Your task to perform on an android device: change the clock display to digital Image 0: 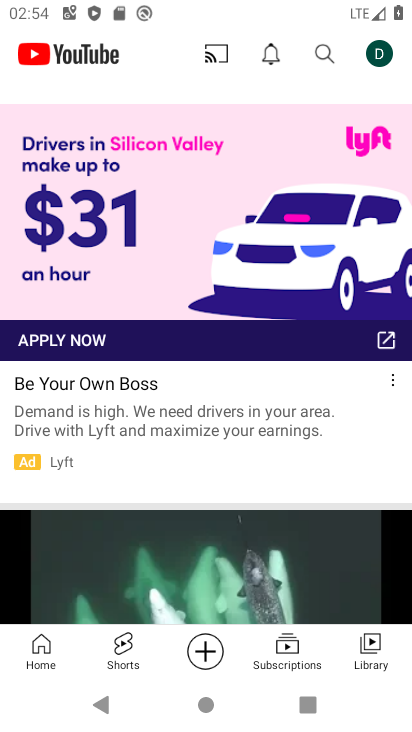
Step 0: press home button
Your task to perform on an android device: change the clock display to digital Image 1: 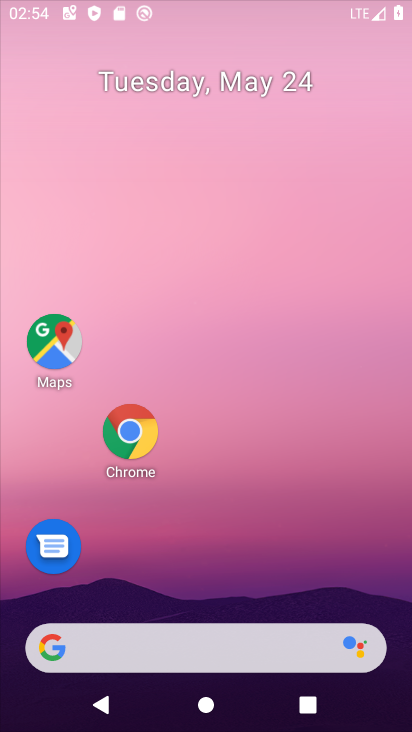
Step 1: drag from (168, 571) to (227, 171)
Your task to perform on an android device: change the clock display to digital Image 2: 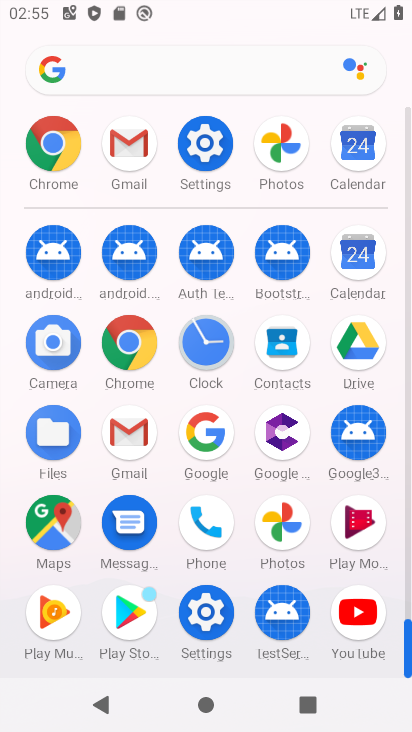
Step 2: click (199, 333)
Your task to perform on an android device: change the clock display to digital Image 3: 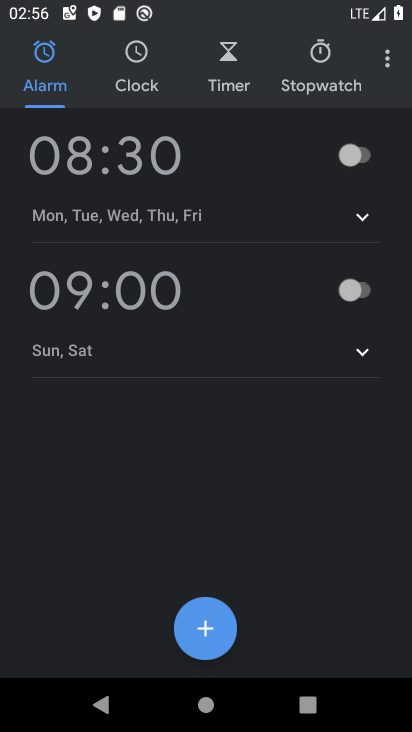
Step 3: click (134, 56)
Your task to perform on an android device: change the clock display to digital Image 4: 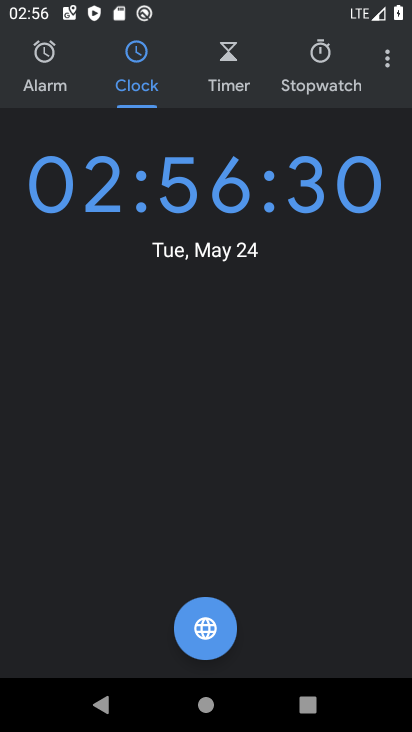
Step 4: click (382, 42)
Your task to perform on an android device: change the clock display to digital Image 5: 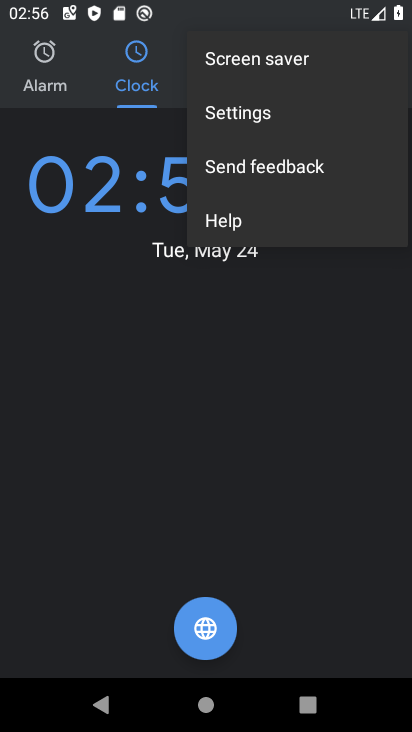
Step 5: click (229, 110)
Your task to perform on an android device: change the clock display to digital Image 6: 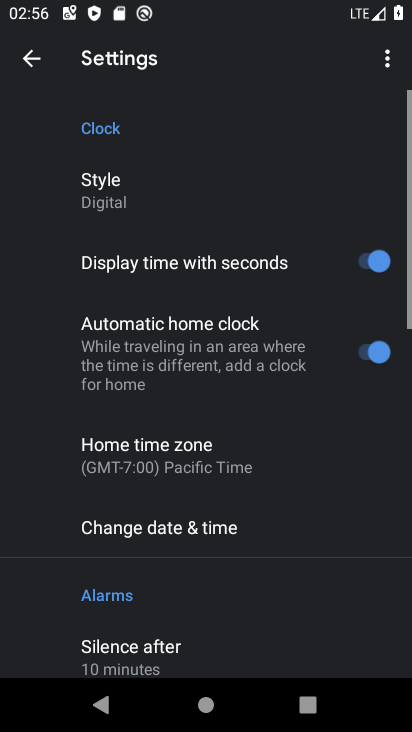
Step 6: click (127, 182)
Your task to perform on an android device: change the clock display to digital Image 7: 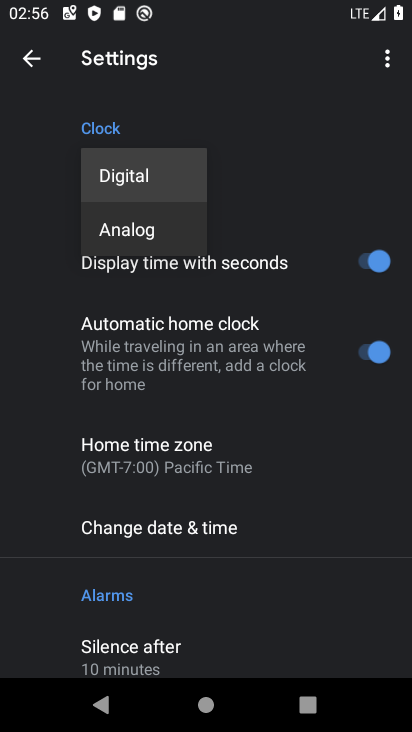
Step 7: click (154, 250)
Your task to perform on an android device: change the clock display to digital Image 8: 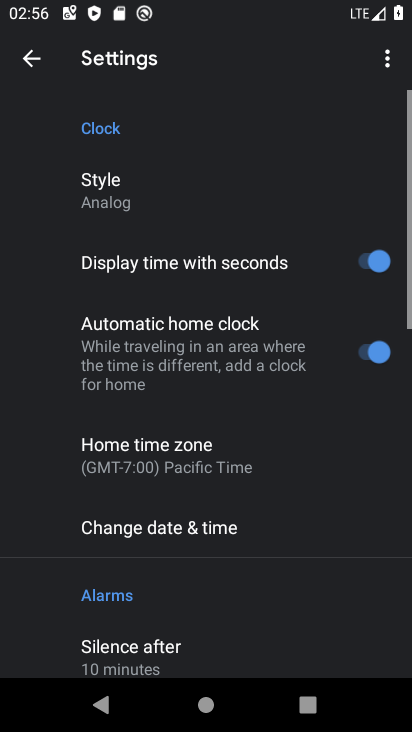
Step 8: click (136, 207)
Your task to perform on an android device: change the clock display to digital Image 9: 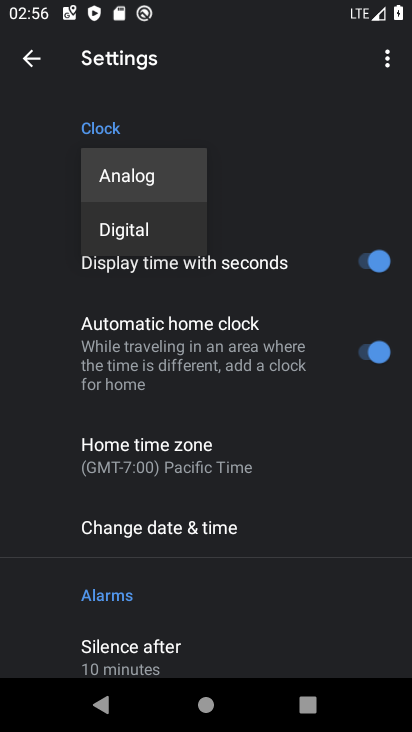
Step 9: click (153, 183)
Your task to perform on an android device: change the clock display to digital Image 10: 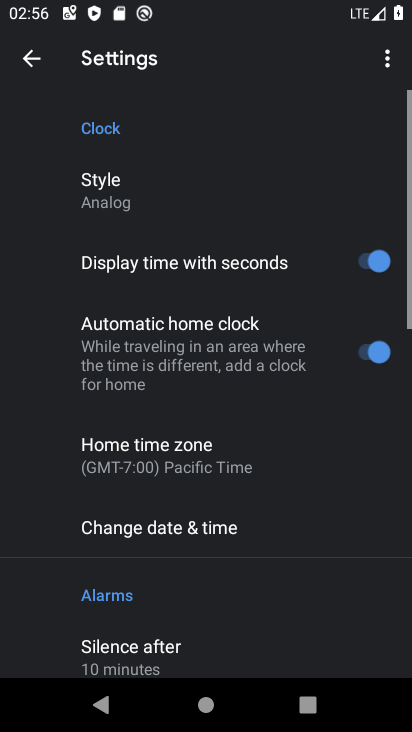
Step 10: click (135, 174)
Your task to perform on an android device: change the clock display to digital Image 11: 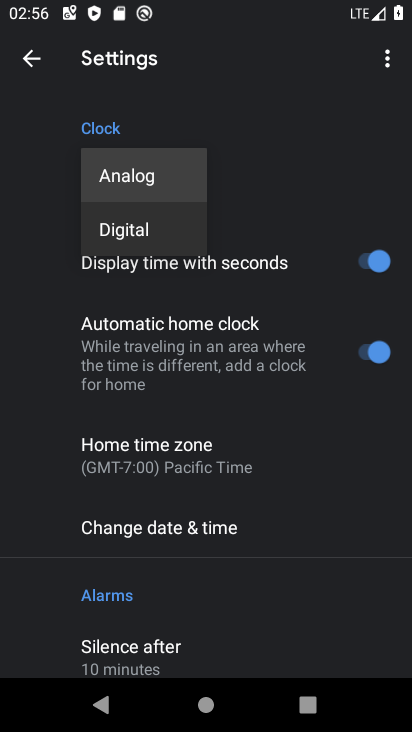
Step 11: click (123, 225)
Your task to perform on an android device: change the clock display to digital Image 12: 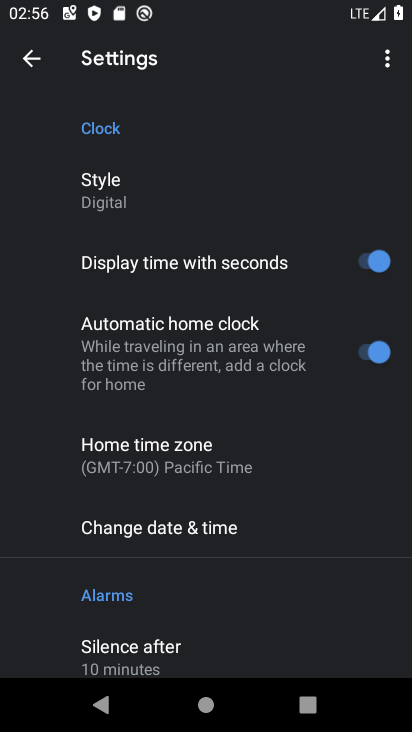
Step 12: task complete